Your task to perform on an android device: change alarm snooze length Image 0: 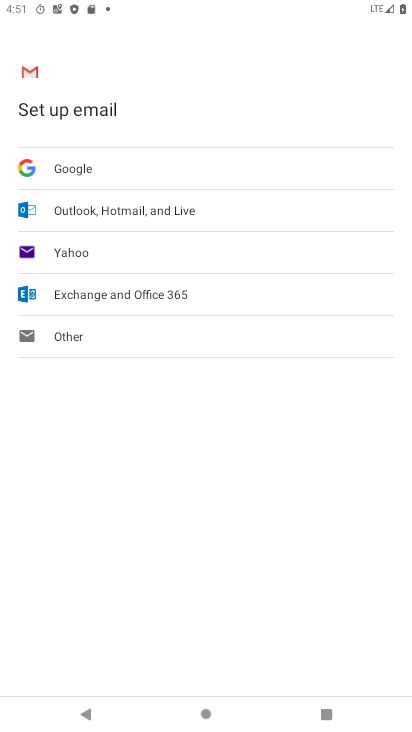
Step 0: press home button
Your task to perform on an android device: change alarm snooze length Image 1: 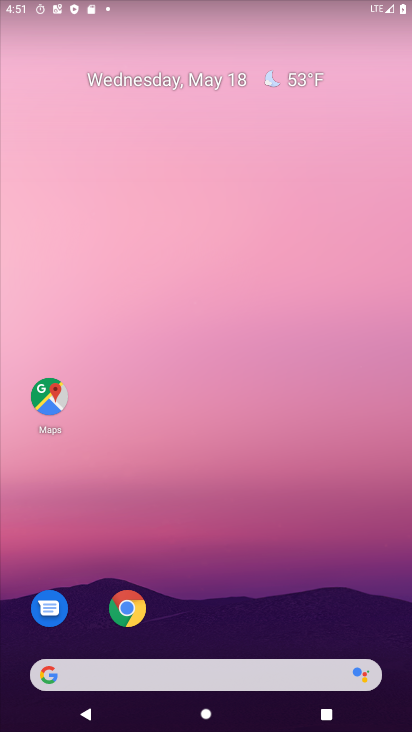
Step 1: drag from (205, 677) to (195, 109)
Your task to perform on an android device: change alarm snooze length Image 2: 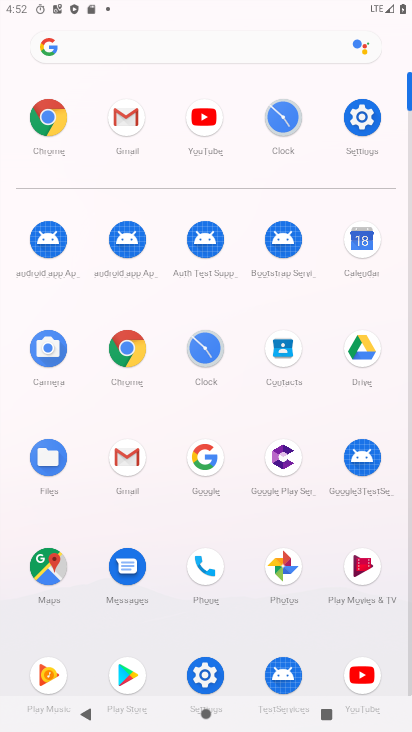
Step 2: click (203, 344)
Your task to perform on an android device: change alarm snooze length Image 3: 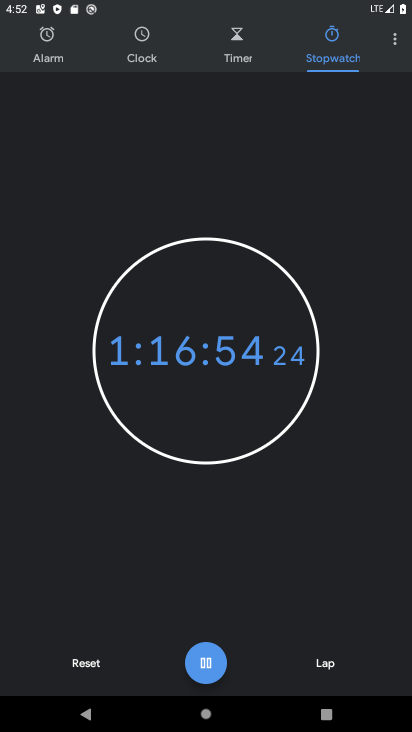
Step 3: click (399, 40)
Your task to perform on an android device: change alarm snooze length Image 4: 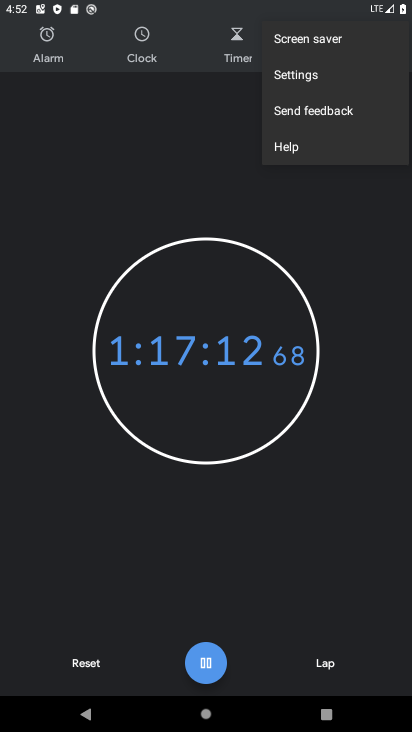
Step 4: click (295, 75)
Your task to perform on an android device: change alarm snooze length Image 5: 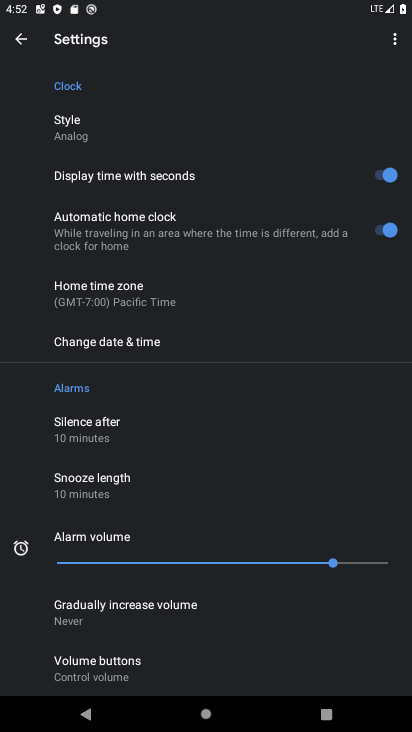
Step 5: click (78, 486)
Your task to perform on an android device: change alarm snooze length Image 6: 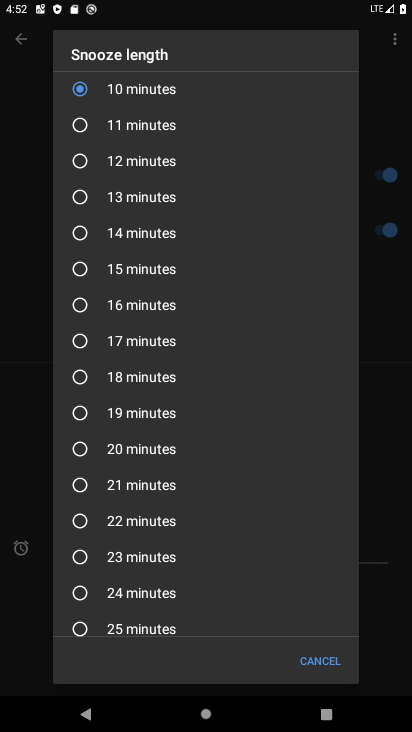
Step 6: click (142, 156)
Your task to perform on an android device: change alarm snooze length Image 7: 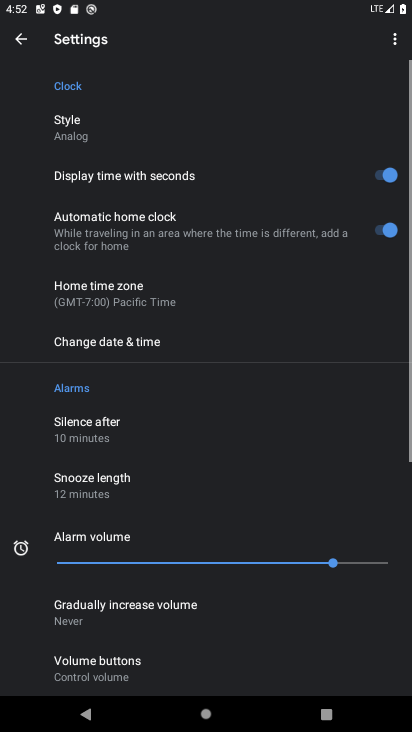
Step 7: task complete